Your task to perform on an android device: Open Chrome and go to settings Image 0: 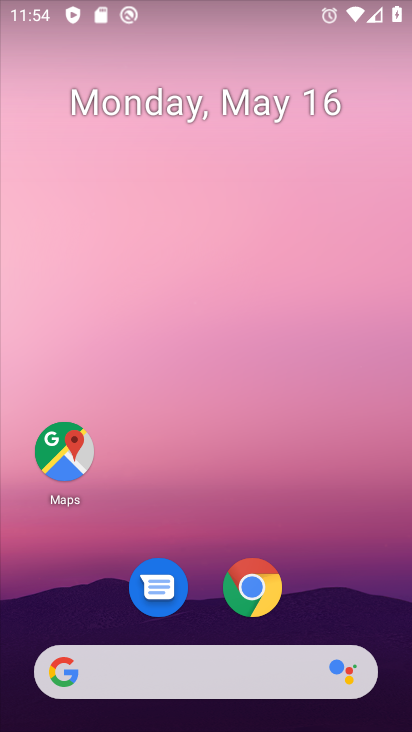
Step 0: click (263, 589)
Your task to perform on an android device: Open Chrome and go to settings Image 1: 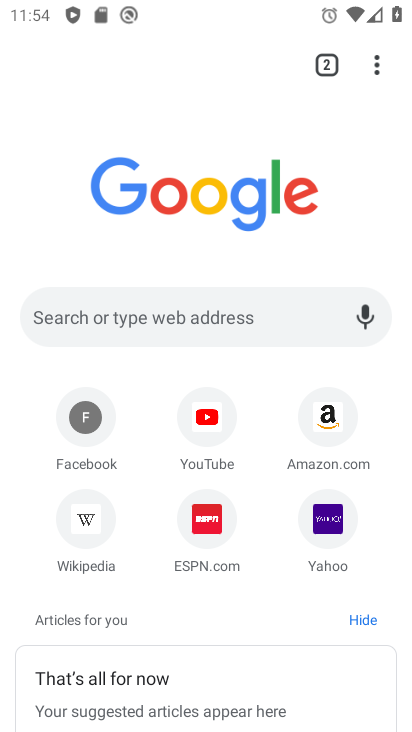
Step 1: click (375, 59)
Your task to perform on an android device: Open Chrome and go to settings Image 2: 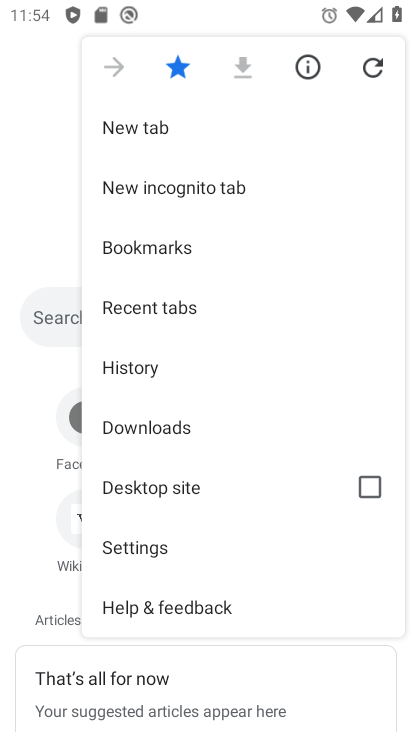
Step 2: click (159, 553)
Your task to perform on an android device: Open Chrome and go to settings Image 3: 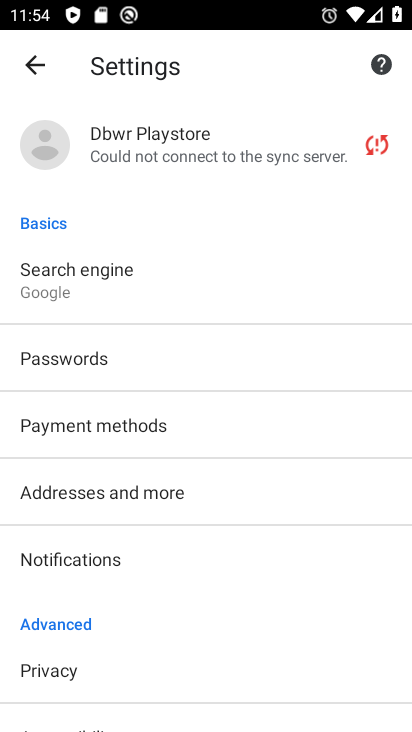
Step 3: task complete